Your task to perform on an android device: Open Google Chrome and open the bookmarks view Image 0: 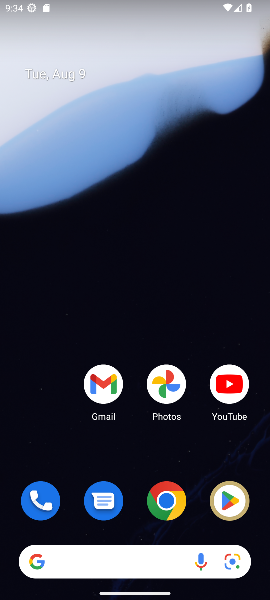
Step 0: click (163, 507)
Your task to perform on an android device: Open Google Chrome and open the bookmarks view Image 1: 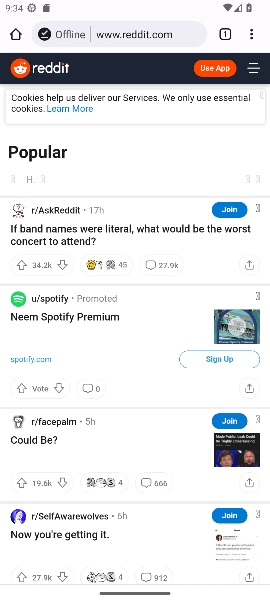
Step 1: click (253, 39)
Your task to perform on an android device: Open Google Chrome and open the bookmarks view Image 2: 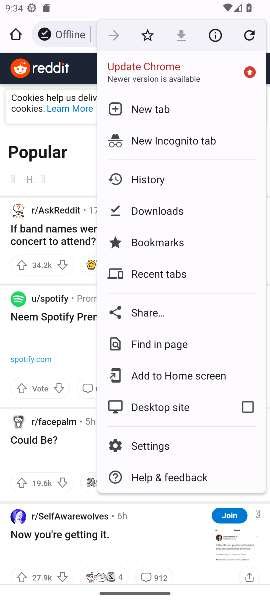
Step 2: click (145, 244)
Your task to perform on an android device: Open Google Chrome and open the bookmarks view Image 3: 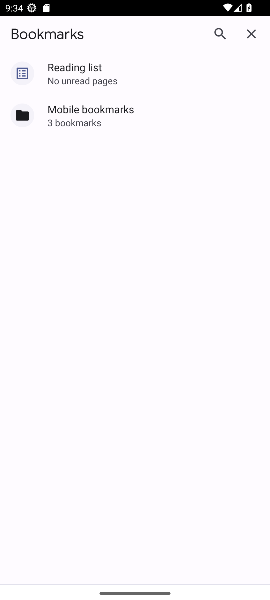
Step 3: task complete